Your task to perform on an android device: Open Google Image 0: 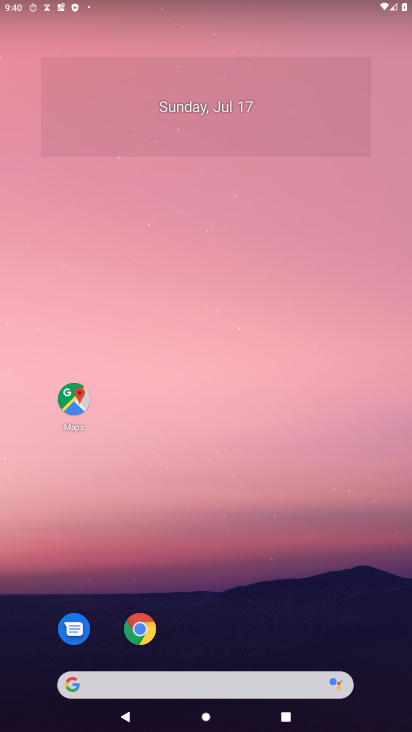
Step 0: drag from (240, 641) to (240, 62)
Your task to perform on an android device: Open Google Image 1: 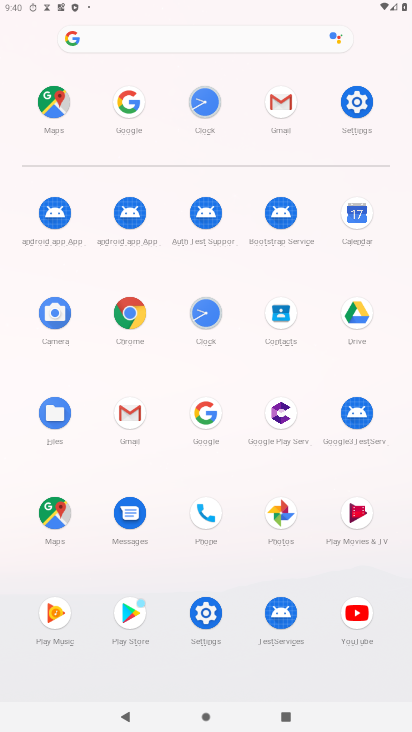
Step 1: click (209, 411)
Your task to perform on an android device: Open Google Image 2: 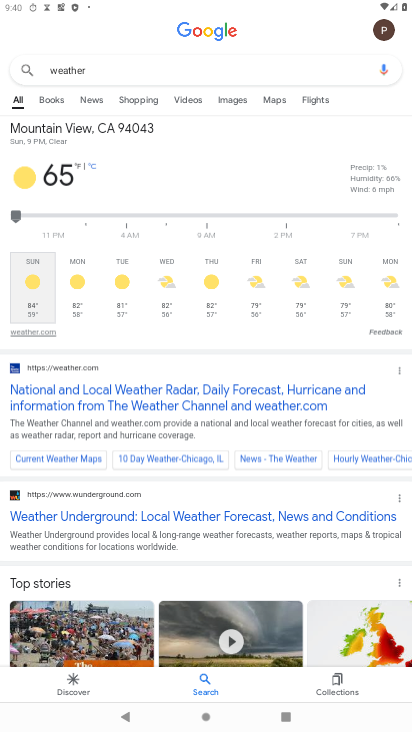
Step 2: task complete